Your task to perform on an android device: What's the weather going to be this weekend? Image 0: 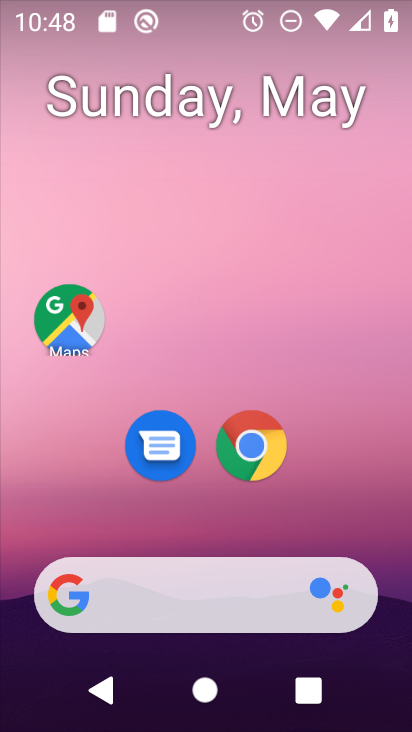
Step 0: click (253, 415)
Your task to perform on an android device: What's the weather going to be this weekend? Image 1: 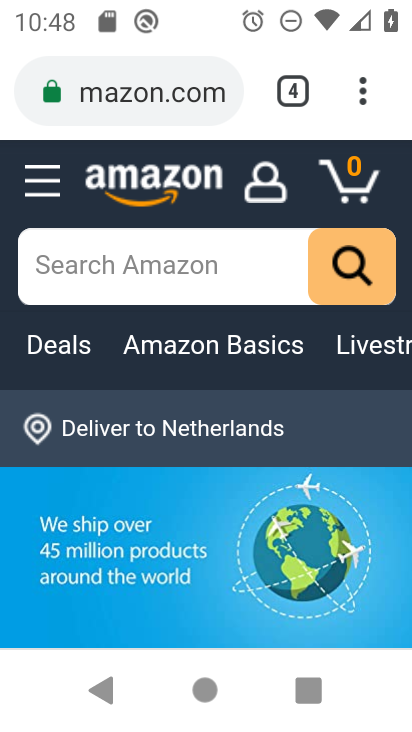
Step 1: press home button
Your task to perform on an android device: What's the weather going to be this weekend? Image 2: 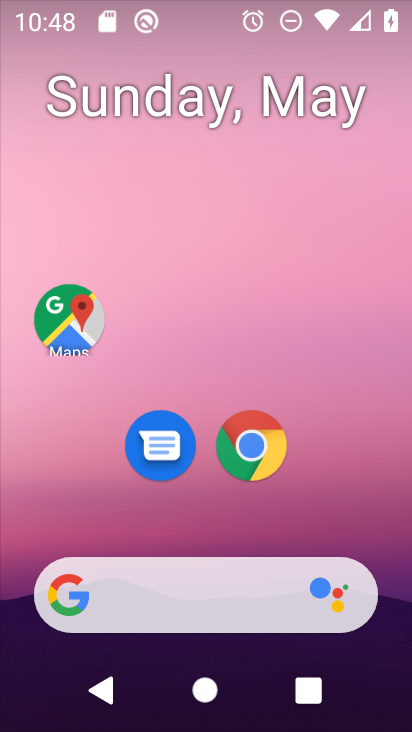
Step 2: drag from (174, 494) to (133, 73)
Your task to perform on an android device: What's the weather going to be this weekend? Image 3: 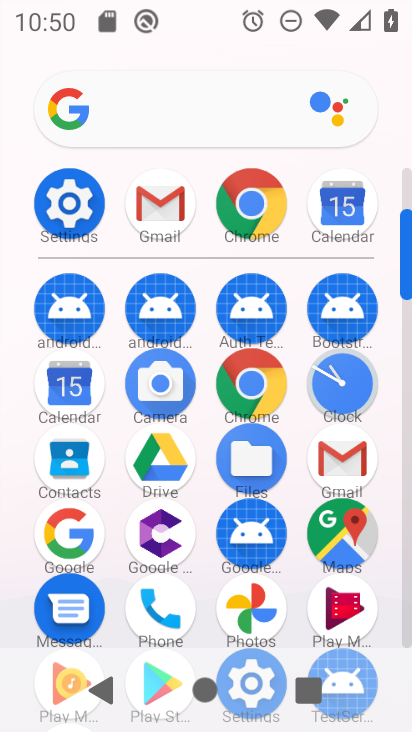
Step 3: click (68, 549)
Your task to perform on an android device: What's the weather going to be this weekend? Image 4: 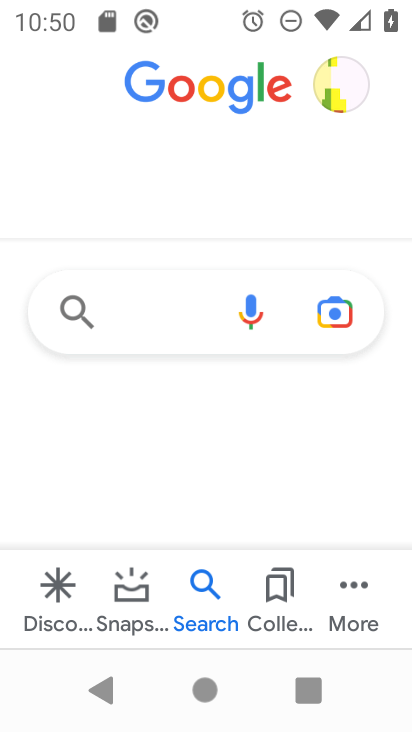
Step 4: click (58, 620)
Your task to perform on an android device: What's the weather going to be this weekend? Image 5: 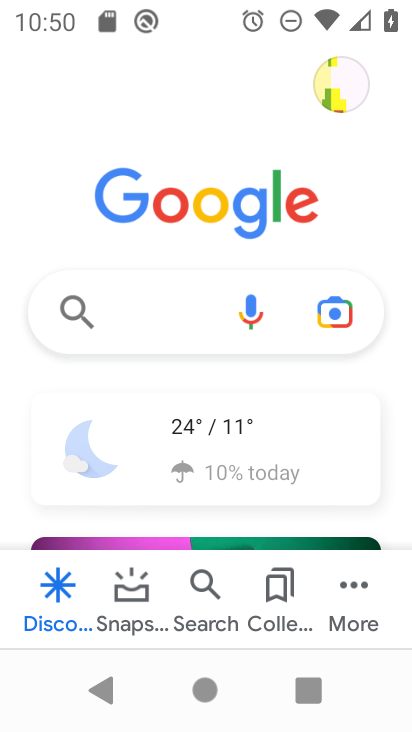
Step 5: click (141, 330)
Your task to perform on an android device: What's the weather going to be this weekend? Image 6: 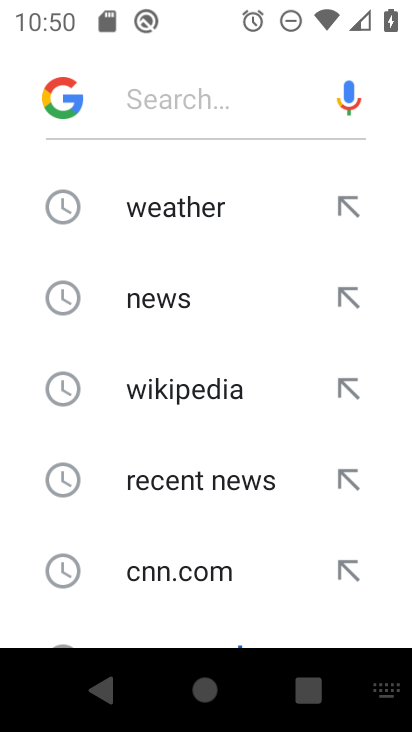
Step 6: click (193, 219)
Your task to perform on an android device: What's the weather going to be this weekend? Image 7: 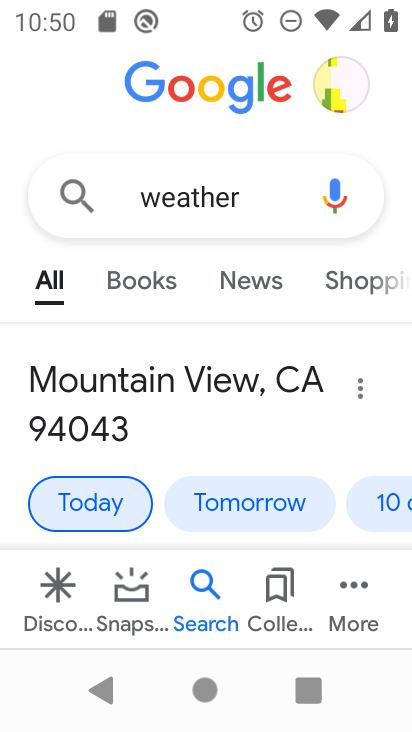
Step 7: click (297, 507)
Your task to perform on an android device: What's the weather going to be this weekend? Image 8: 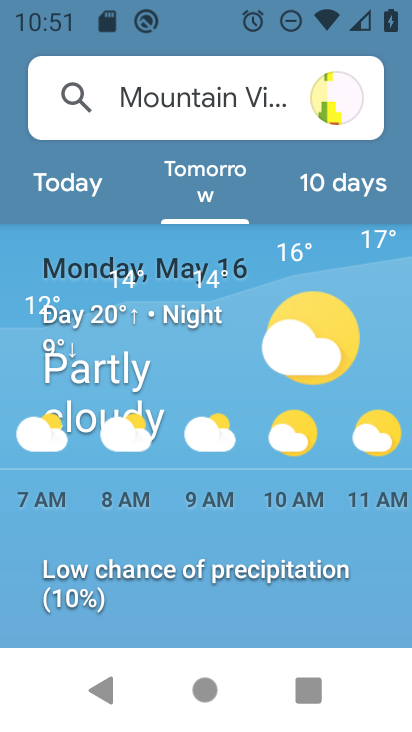
Step 8: task complete